Your task to perform on an android device: toggle sleep mode Image 0: 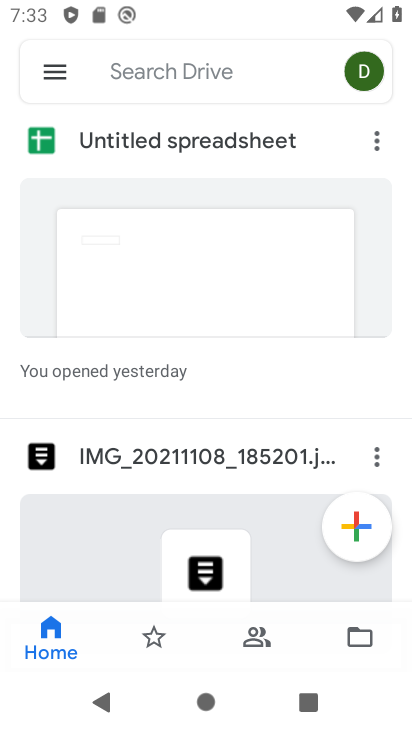
Step 0: press home button
Your task to perform on an android device: toggle sleep mode Image 1: 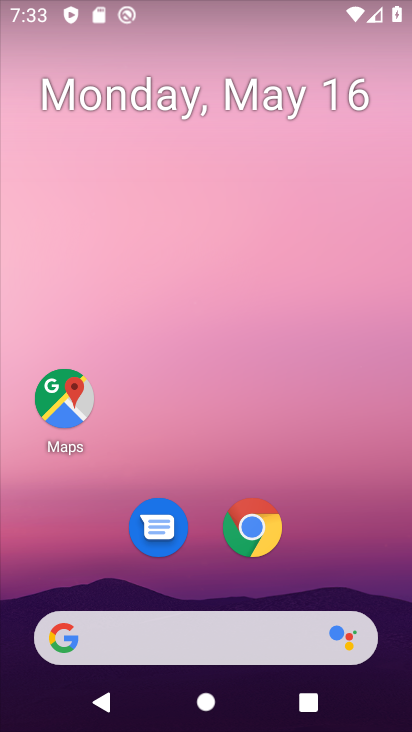
Step 1: drag from (204, 588) to (273, 21)
Your task to perform on an android device: toggle sleep mode Image 2: 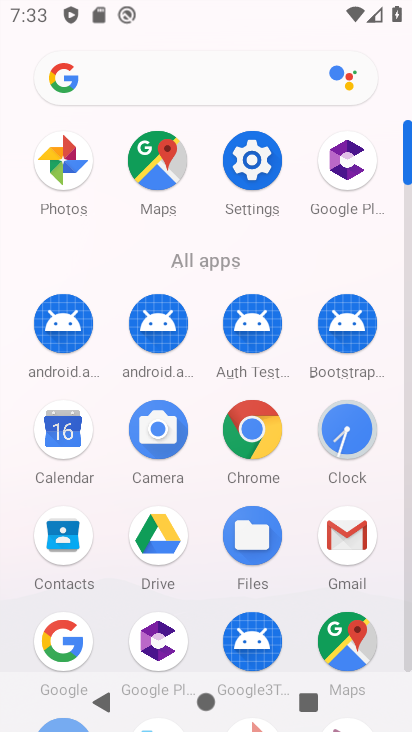
Step 2: click (248, 165)
Your task to perform on an android device: toggle sleep mode Image 3: 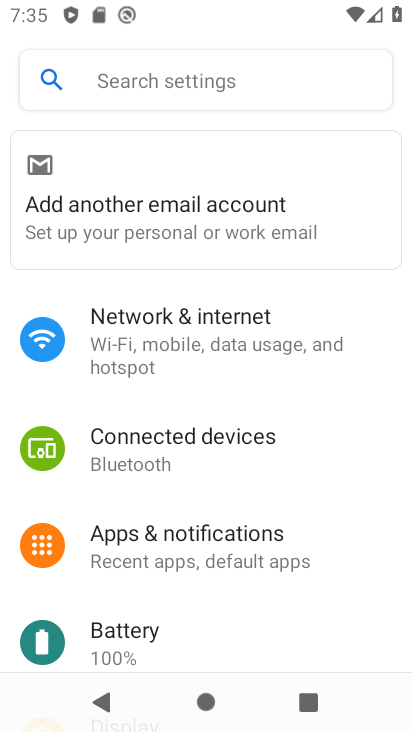
Step 3: task complete